Your task to perform on an android device: refresh tabs in the chrome app Image 0: 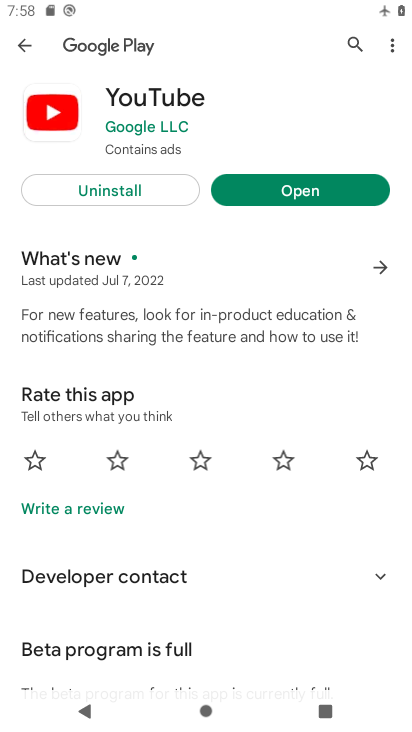
Step 0: press home button
Your task to perform on an android device: refresh tabs in the chrome app Image 1: 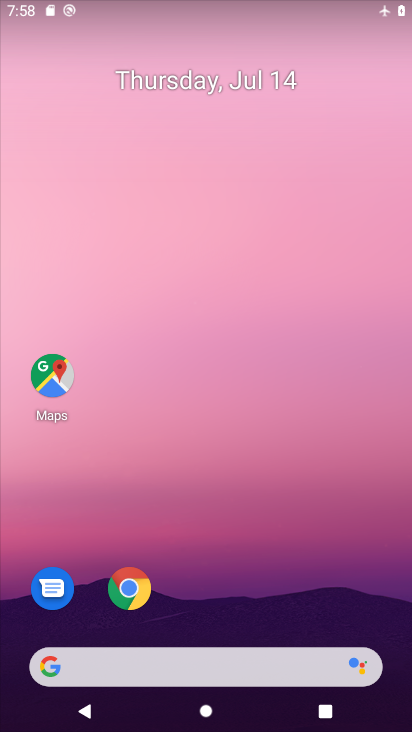
Step 1: click (120, 582)
Your task to perform on an android device: refresh tabs in the chrome app Image 2: 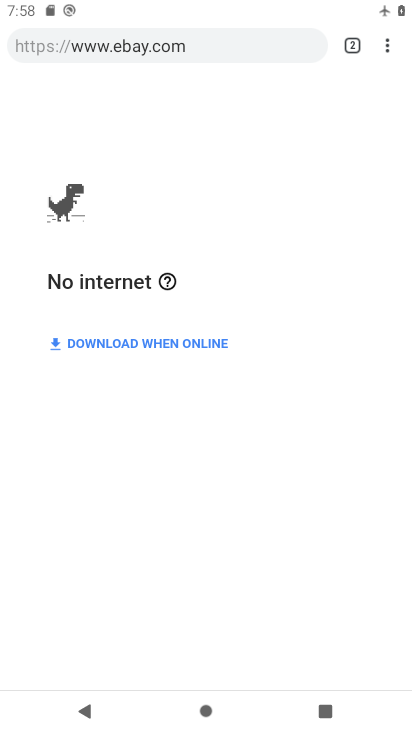
Step 2: click (392, 49)
Your task to perform on an android device: refresh tabs in the chrome app Image 3: 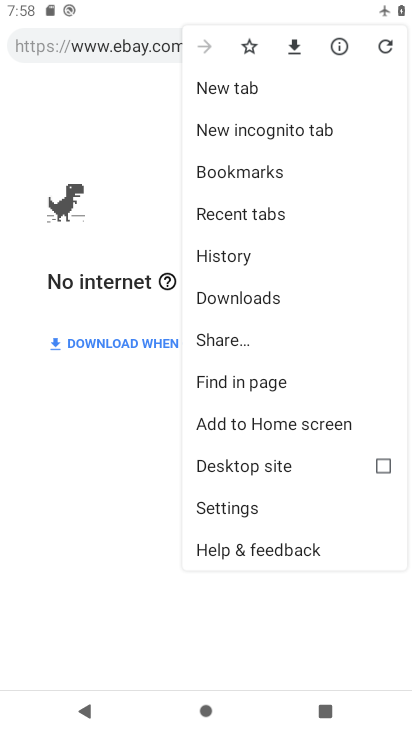
Step 3: click (382, 47)
Your task to perform on an android device: refresh tabs in the chrome app Image 4: 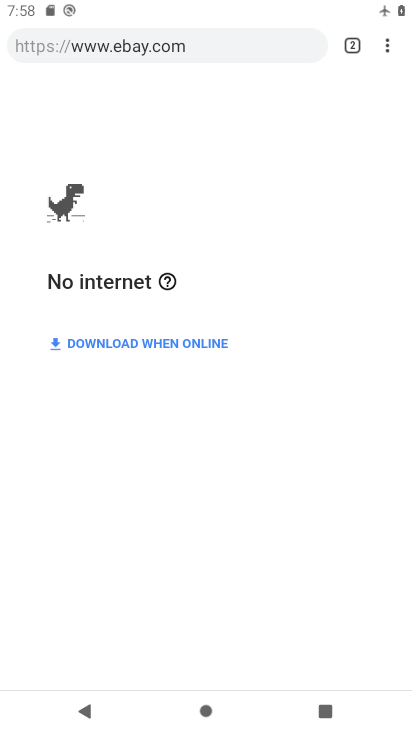
Step 4: task complete